Your task to perform on an android device: Go to wifi settings Image 0: 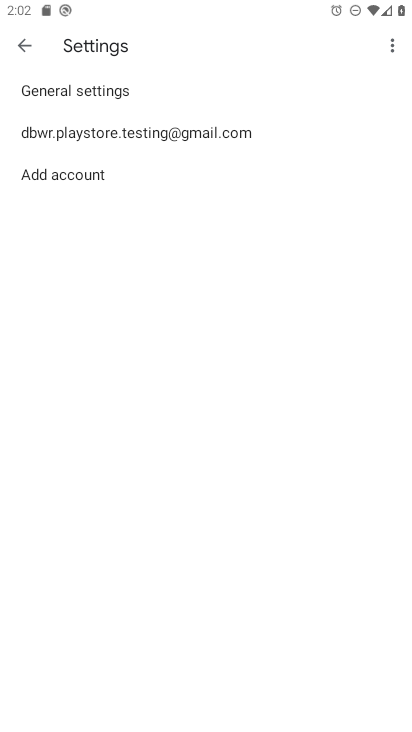
Step 0: press home button
Your task to perform on an android device: Go to wifi settings Image 1: 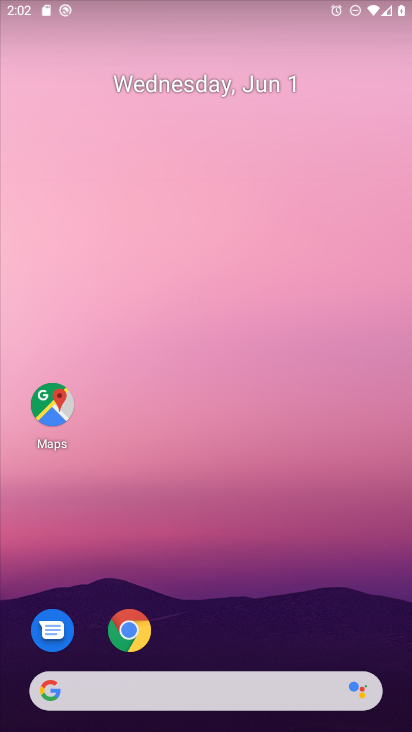
Step 1: drag from (340, 684) to (377, 54)
Your task to perform on an android device: Go to wifi settings Image 2: 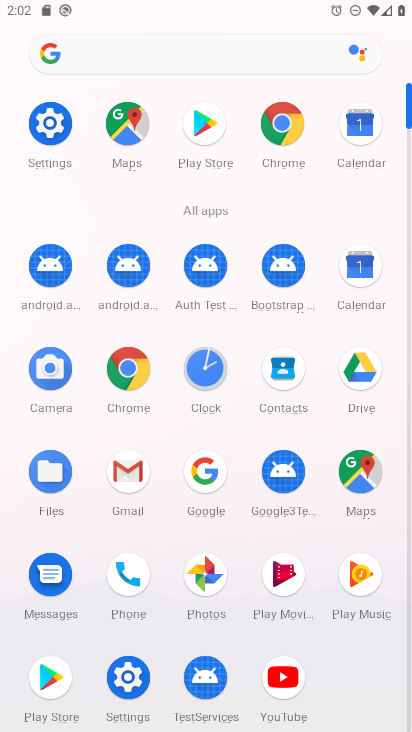
Step 2: click (47, 117)
Your task to perform on an android device: Go to wifi settings Image 3: 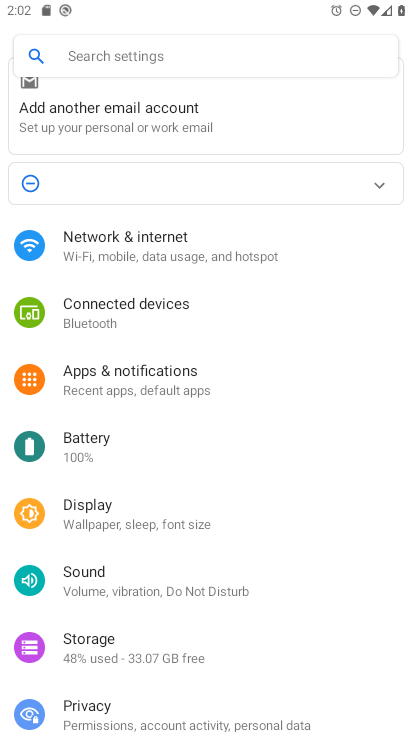
Step 3: click (148, 243)
Your task to perform on an android device: Go to wifi settings Image 4: 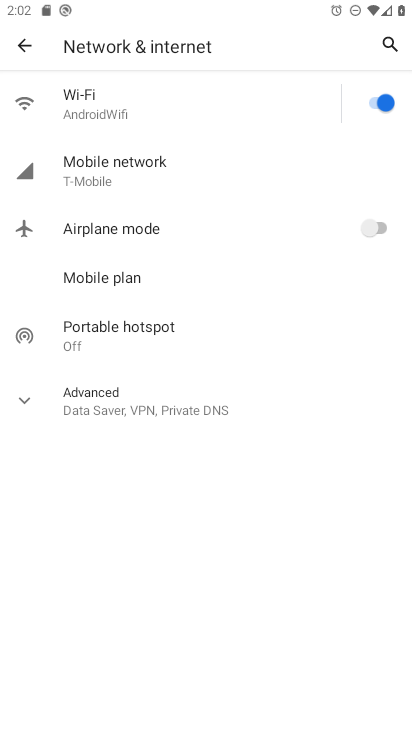
Step 4: click (130, 110)
Your task to perform on an android device: Go to wifi settings Image 5: 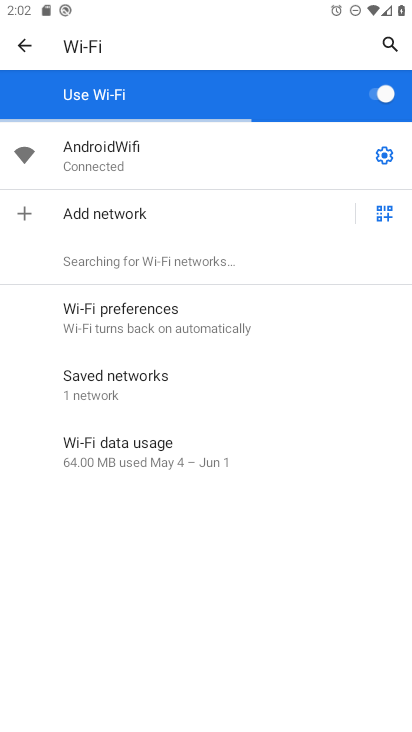
Step 5: task complete